Your task to perform on an android device: empty trash in google photos Image 0: 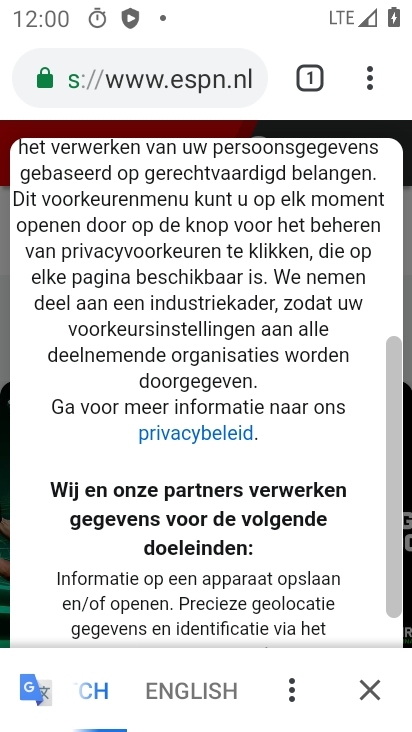
Step 0: press home button
Your task to perform on an android device: empty trash in google photos Image 1: 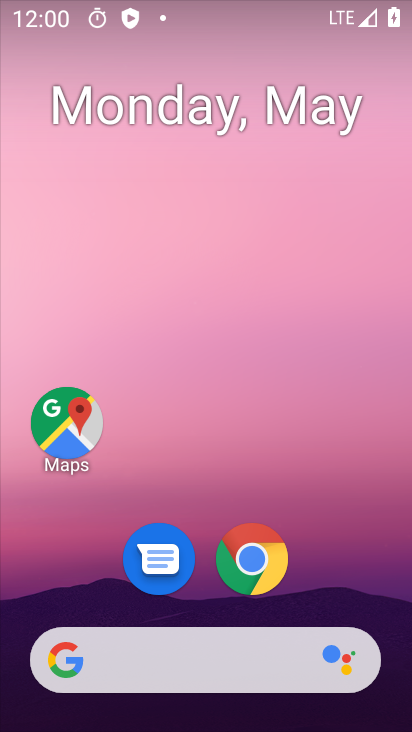
Step 1: drag from (254, 620) to (399, 607)
Your task to perform on an android device: empty trash in google photos Image 2: 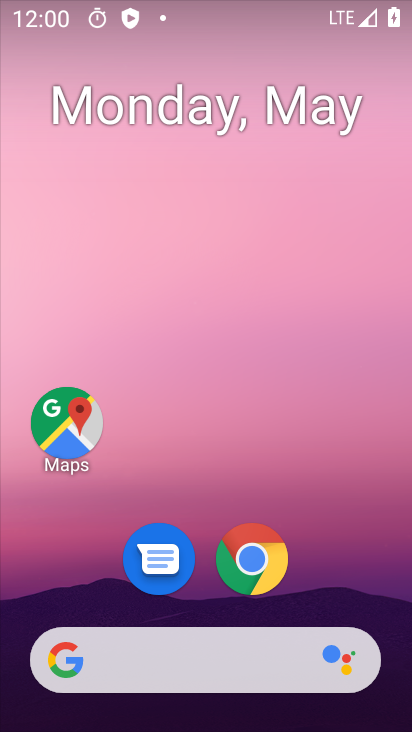
Step 2: drag from (309, 586) to (404, 664)
Your task to perform on an android device: empty trash in google photos Image 3: 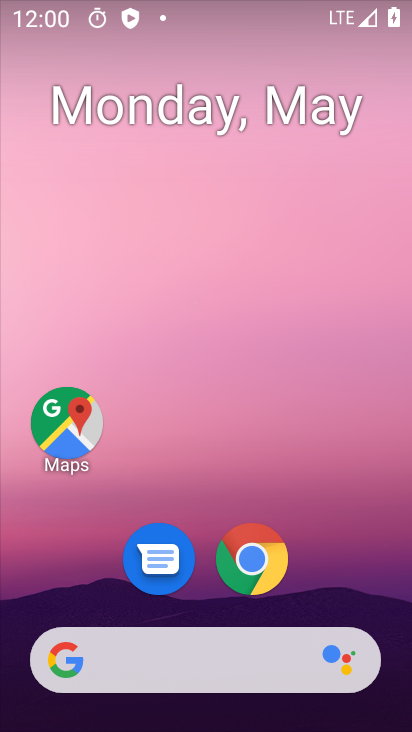
Step 3: drag from (312, 581) to (409, 531)
Your task to perform on an android device: empty trash in google photos Image 4: 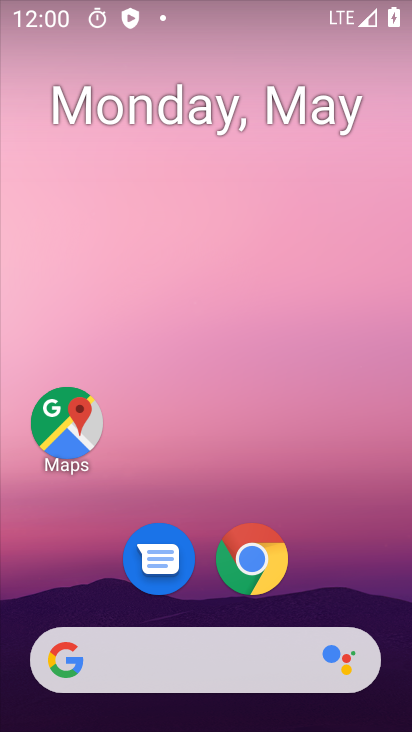
Step 4: drag from (300, 590) to (339, 2)
Your task to perform on an android device: empty trash in google photos Image 5: 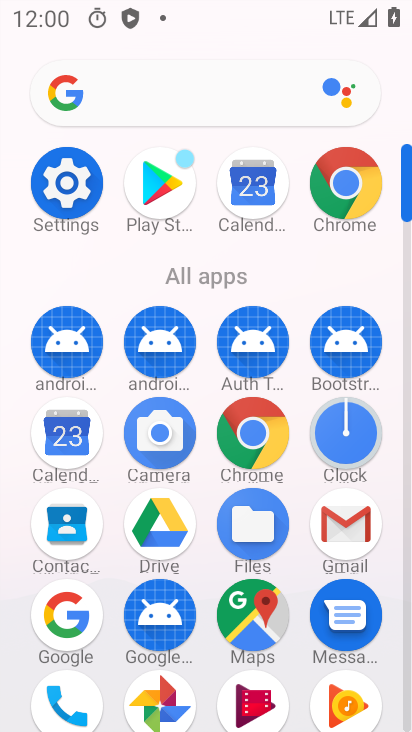
Step 5: drag from (305, 577) to (272, 204)
Your task to perform on an android device: empty trash in google photos Image 6: 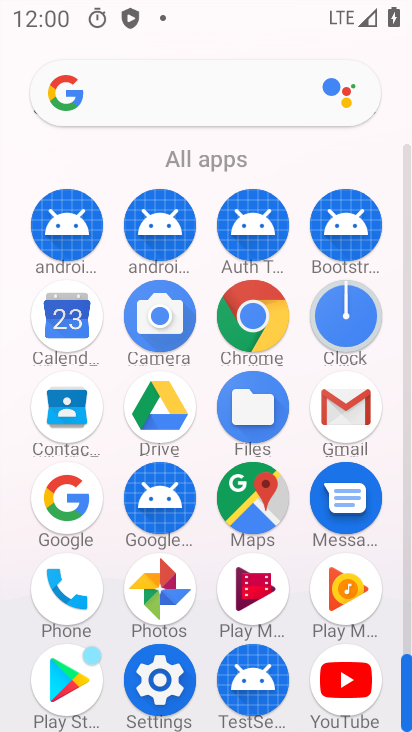
Step 6: click (162, 597)
Your task to perform on an android device: empty trash in google photos Image 7: 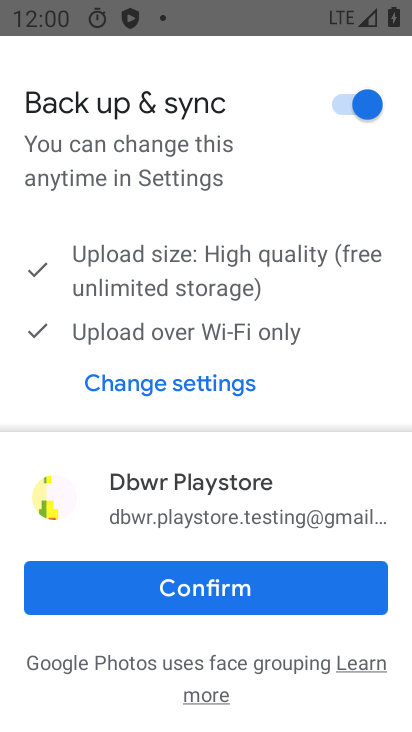
Step 7: click (318, 579)
Your task to perform on an android device: empty trash in google photos Image 8: 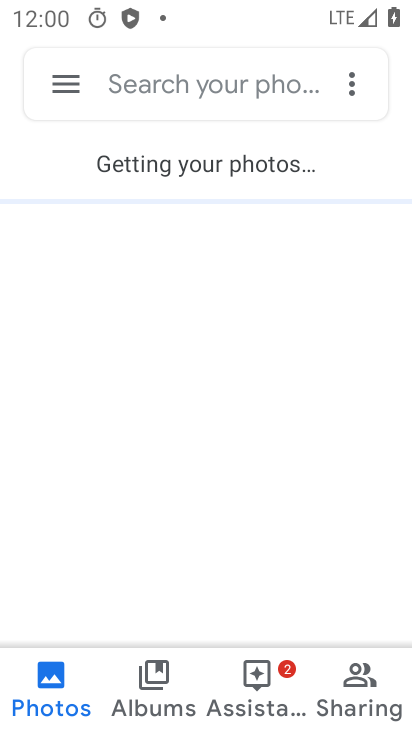
Step 8: click (67, 97)
Your task to perform on an android device: empty trash in google photos Image 9: 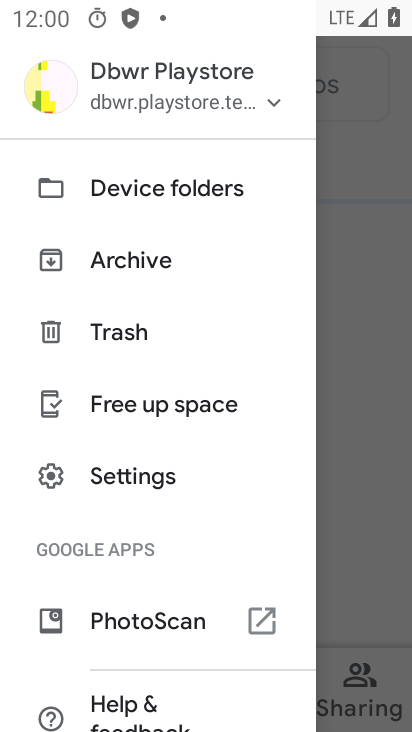
Step 9: click (181, 334)
Your task to perform on an android device: empty trash in google photos Image 10: 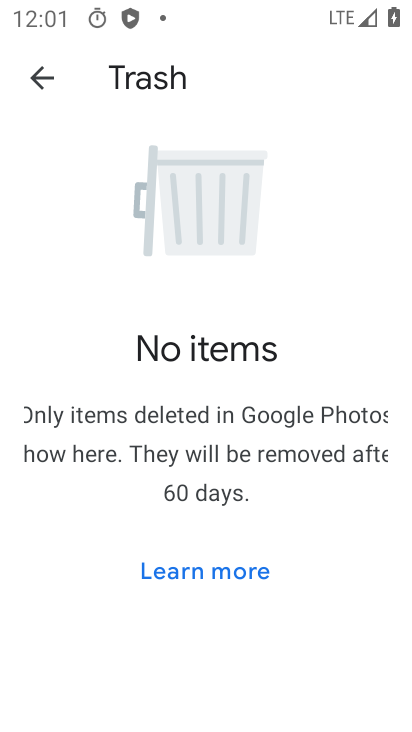
Step 10: task complete